Your task to perform on an android device: Open wifi settings Image 0: 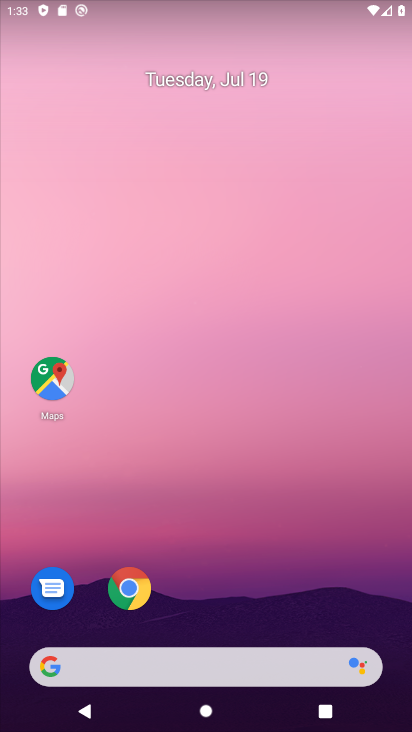
Step 0: drag from (316, 531) to (228, 179)
Your task to perform on an android device: Open wifi settings Image 1: 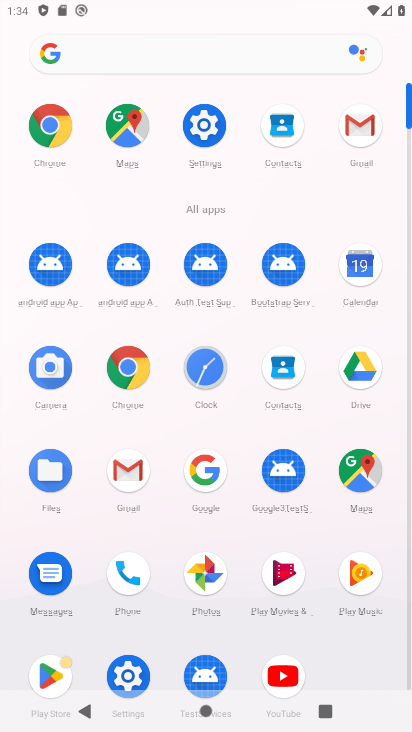
Step 1: click (190, 129)
Your task to perform on an android device: Open wifi settings Image 2: 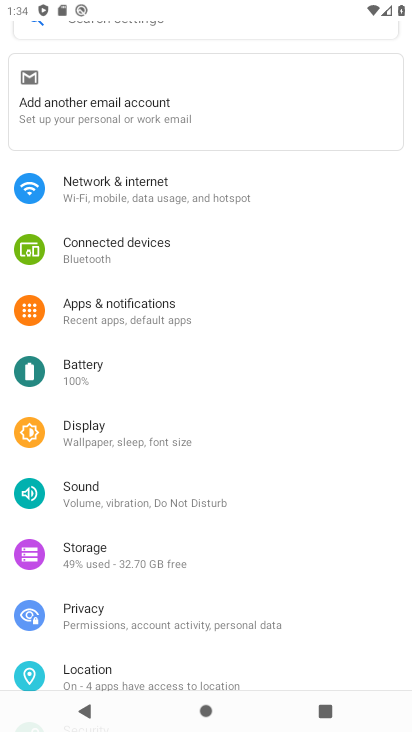
Step 2: click (143, 177)
Your task to perform on an android device: Open wifi settings Image 3: 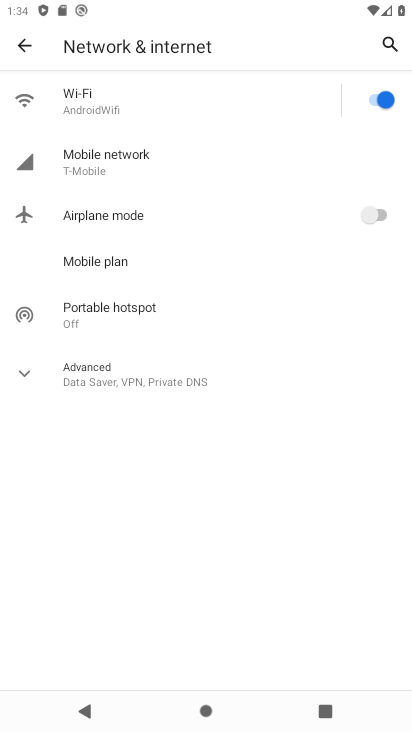
Step 3: task complete